Your task to perform on an android device: star an email in the gmail app Image 0: 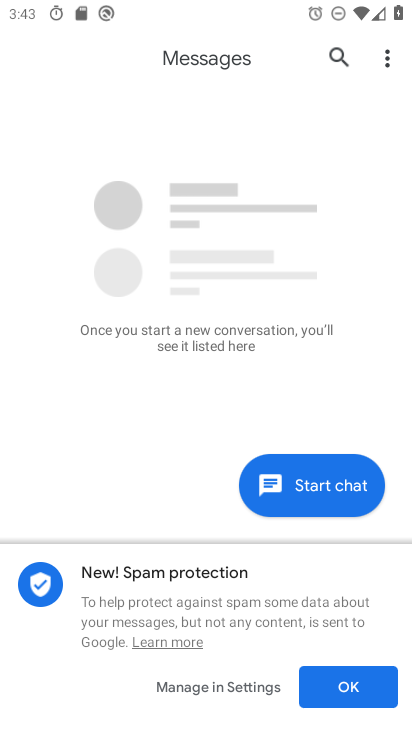
Step 0: press home button
Your task to perform on an android device: star an email in the gmail app Image 1: 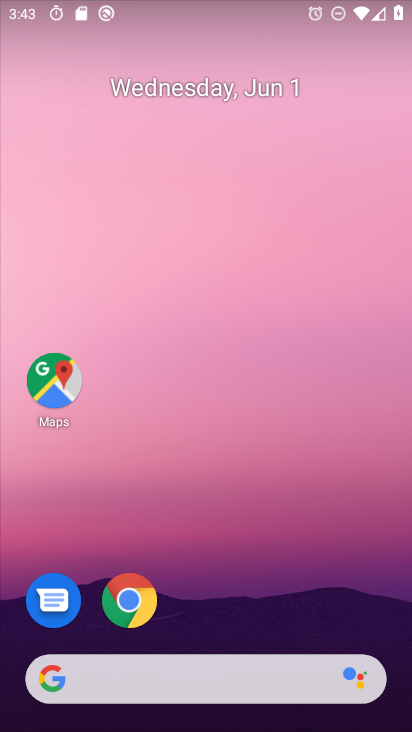
Step 1: drag from (237, 604) to (236, 152)
Your task to perform on an android device: star an email in the gmail app Image 2: 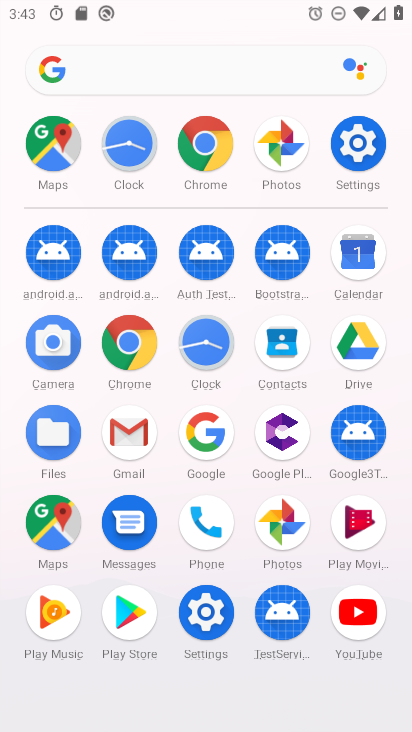
Step 2: click (121, 441)
Your task to perform on an android device: star an email in the gmail app Image 3: 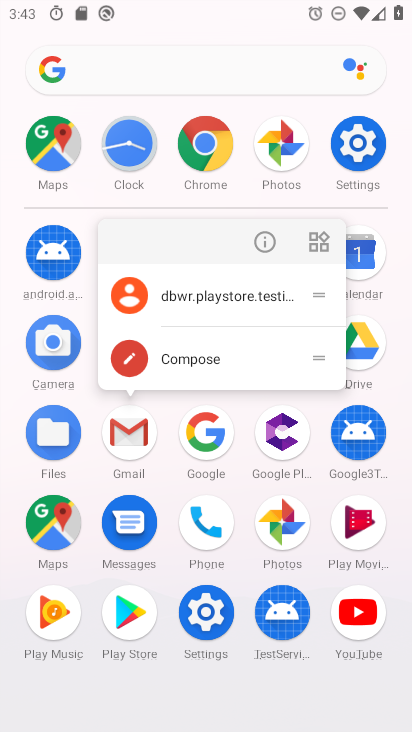
Step 3: click (126, 439)
Your task to perform on an android device: star an email in the gmail app Image 4: 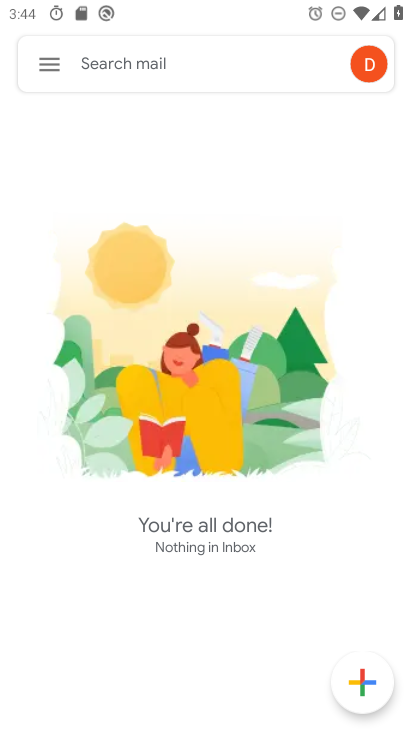
Step 4: click (55, 73)
Your task to perform on an android device: star an email in the gmail app Image 5: 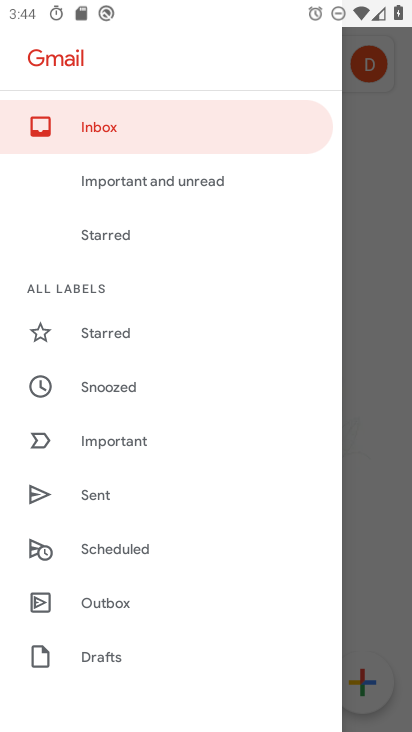
Step 5: drag from (134, 608) to (173, 284)
Your task to perform on an android device: star an email in the gmail app Image 6: 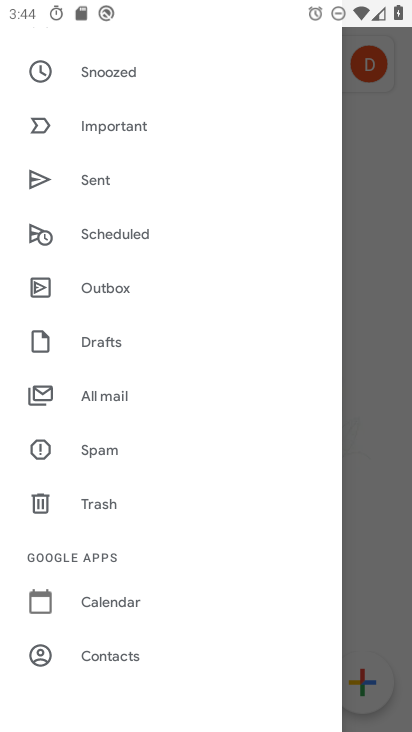
Step 6: click (128, 397)
Your task to perform on an android device: star an email in the gmail app Image 7: 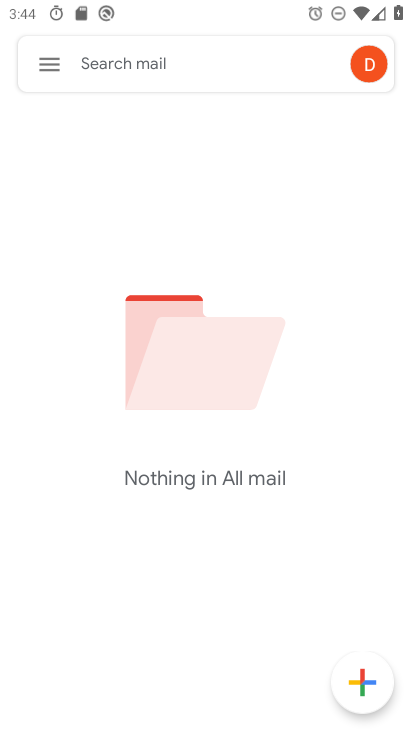
Step 7: task complete